Your task to perform on an android device: set the stopwatch Image 0: 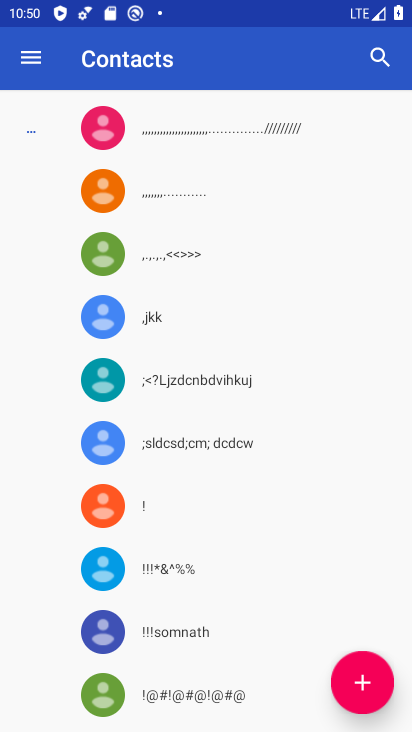
Step 0: press home button
Your task to perform on an android device: set the stopwatch Image 1: 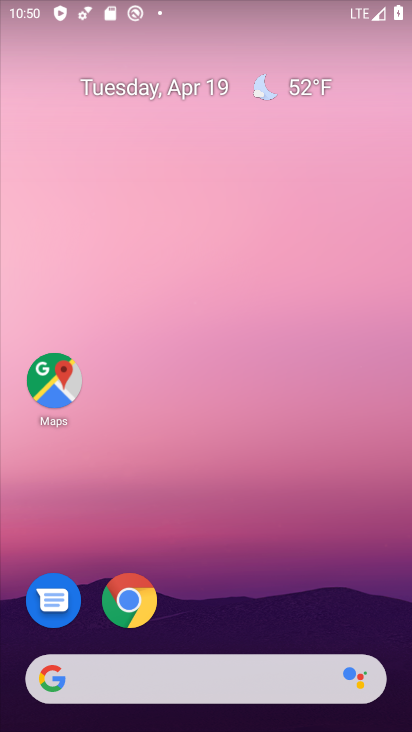
Step 1: drag from (334, 620) to (218, 29)
Your task to perform on an android device: set the stopwatch Image 2: 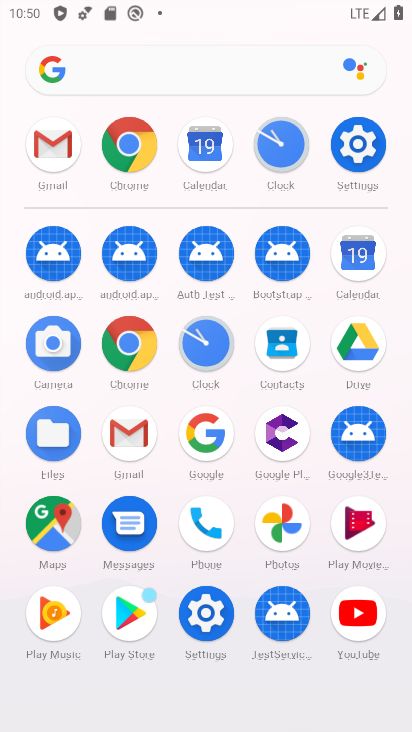
Step 2: click (265, 138)
Your task to perform on an android device: set the stopwatch Image 3: 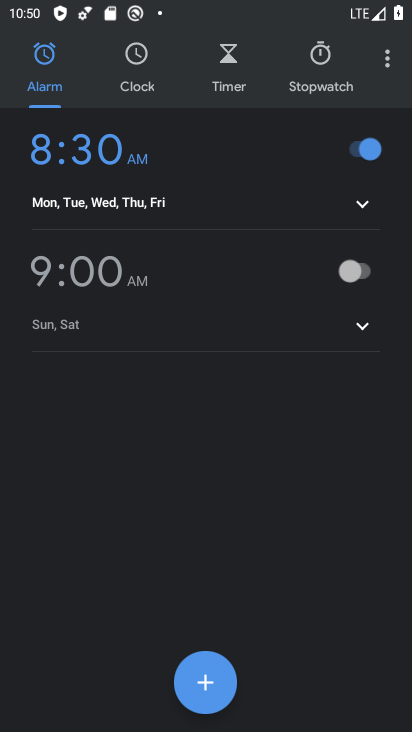
Step 3: click (326, 56)
Your task to perform on an android device: set the stopwatch Image 4: 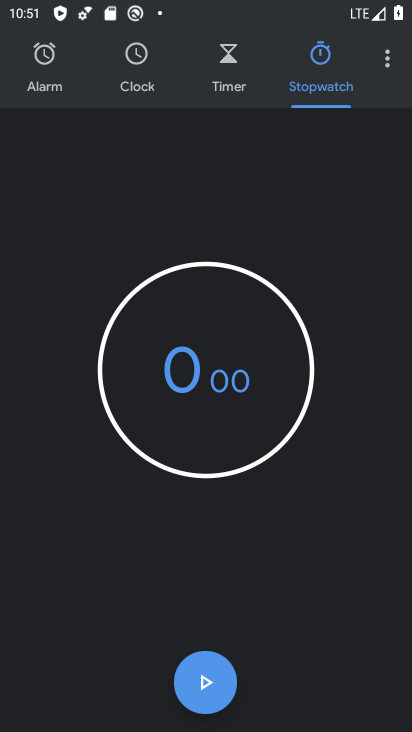
Step 4: task complete